Your task to perform on an android device: What's the weather today? Image 0: 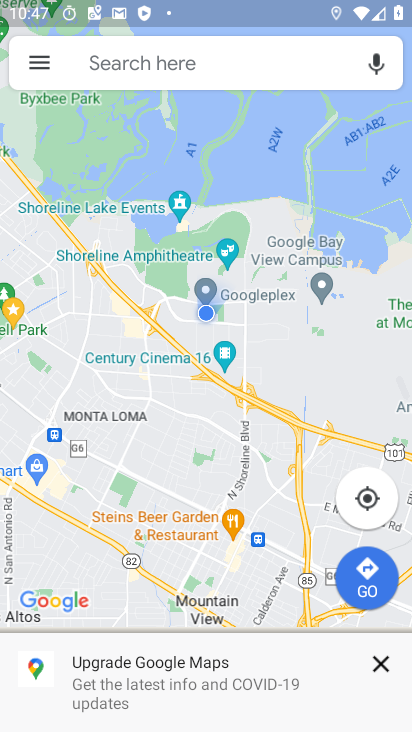
Step 0: press back button
Your task to perform on an android device: What's the weather today? Image 1: 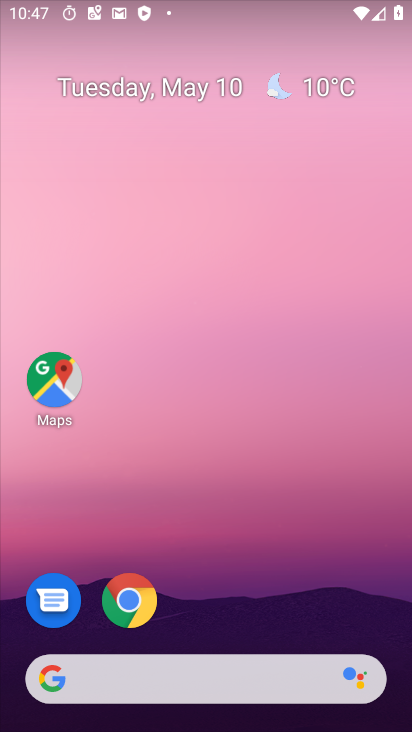
Step 1: drag from (263, 605) to (198, 0)
Your task to perform on an android device: What's the weather today? Image 2: 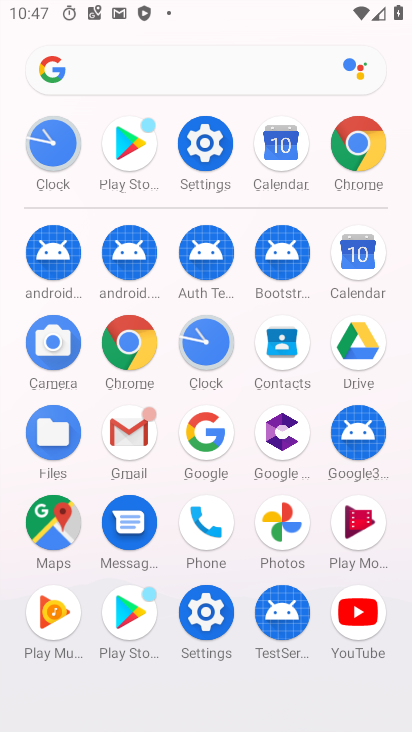
Step 2: click (356, 144)
Your task to perform on an android device: What's the weather today? Image 3: 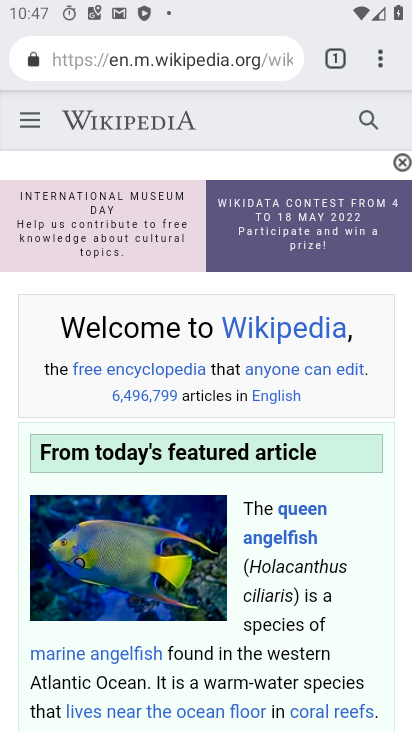
Step 3: click (218, 48)
Your task to perform on an android device: What's the weather today? Image 4: 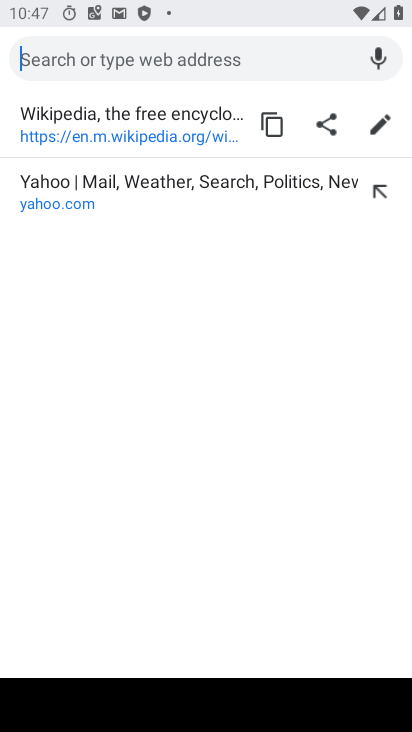
Step 4: type "What's the weather today?"
Your task to perform on an android device: What's the weather today? Image 5: 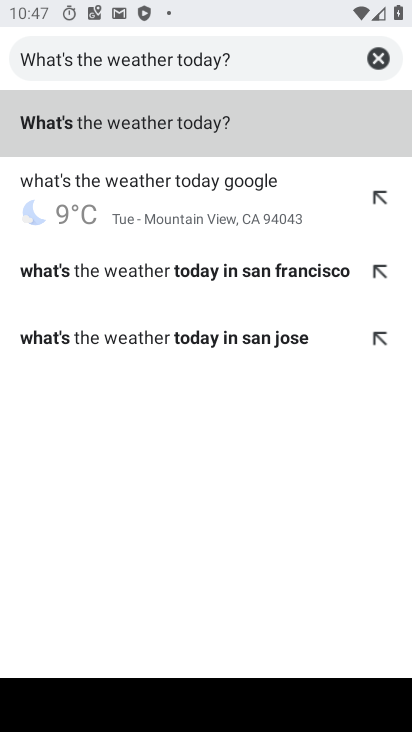
Step 5: click (156, 187)
Your task to perform on an android device: What's the weather today? Image 6: 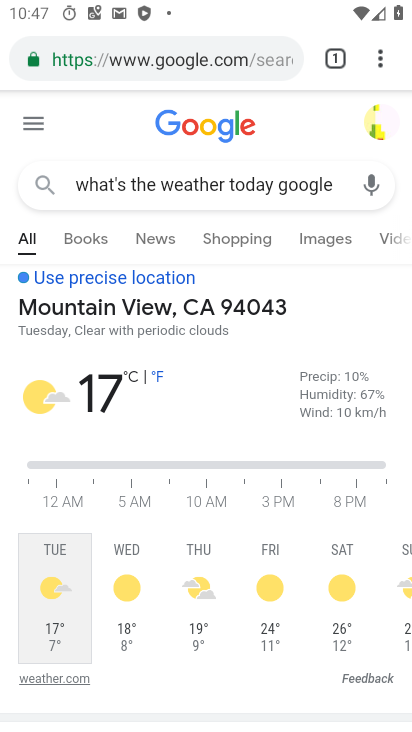
Step 6: task complete